Your task to perform on an android device: Open Chrome and go to settings Image 0: 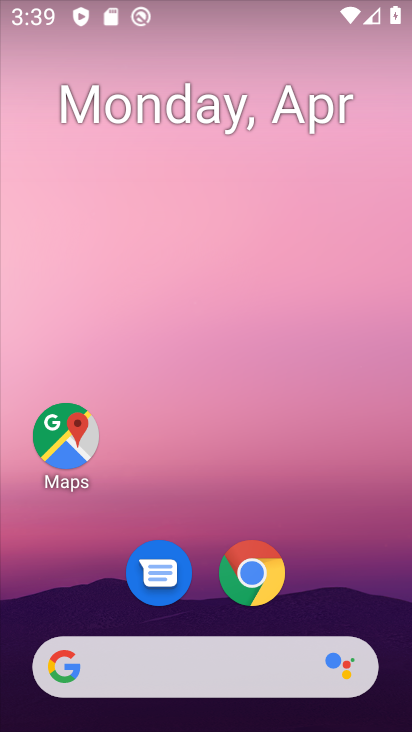
Step 0: drag from (353, 529) to (339, 136)
Your task to perform on an android device: Open Chrome and go to settings Image 1: 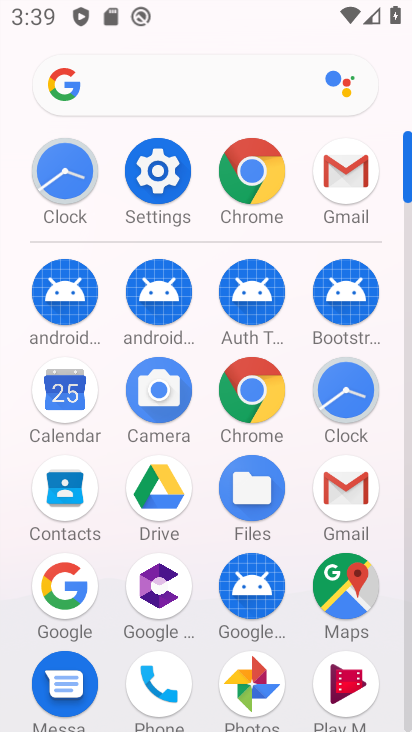
Step 1: click (261, 180)
Your task to perform on an android device: Open Chrome and go to settings Image 2: 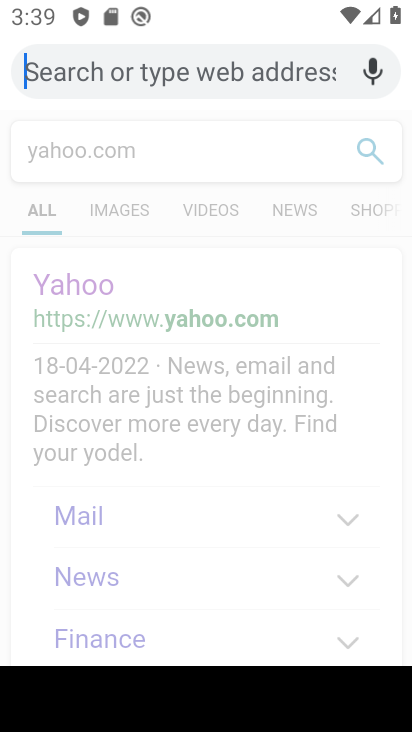
Step 2: press back button
Your task to perform on an android device: Open Chrome and go to settings Image 3: 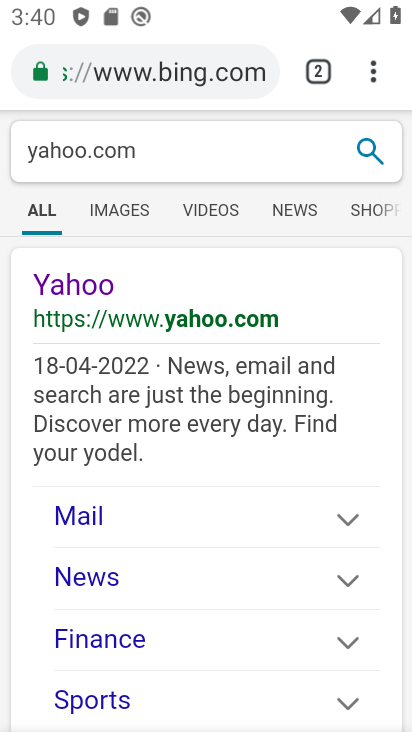
Step 3: click (378, 70)
Your task to perform on an android device: Open Chrome and go to settings Image 4: 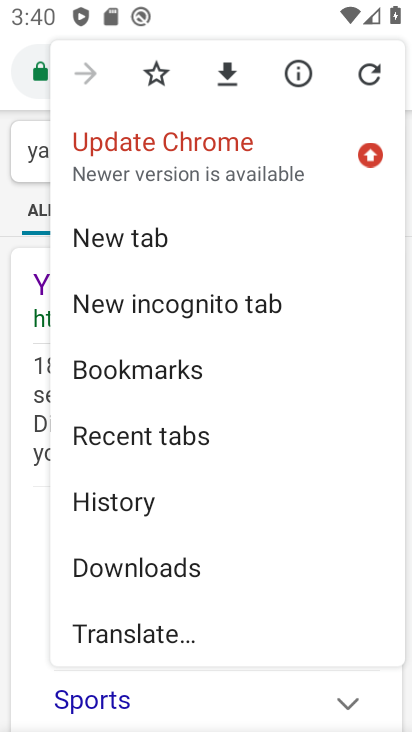
Step 4: drag from (341, 547) to (341, 378)
Your task to perform on an android device: Open Chrome and go to settings Image 5: 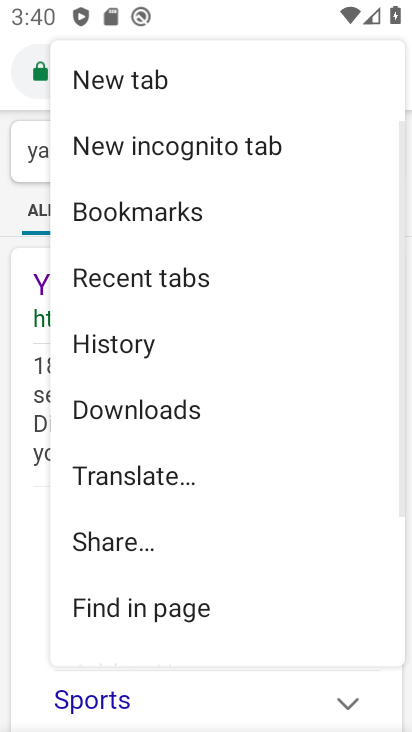
Step 5: drag from (314, 555) to (317, 398)
Your task to perform on an android device: Open Chrome and go to settings Image 6: 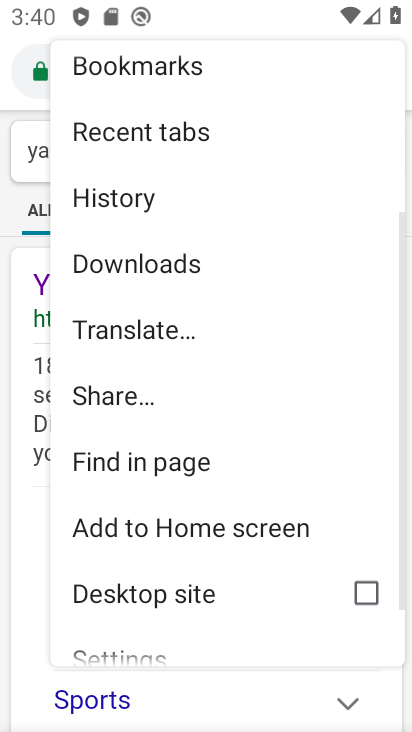
Step 6: drag from (317, 602) to (309, 367)
Your task to perform on an android device: Open Chrome and go to settings Image 7: 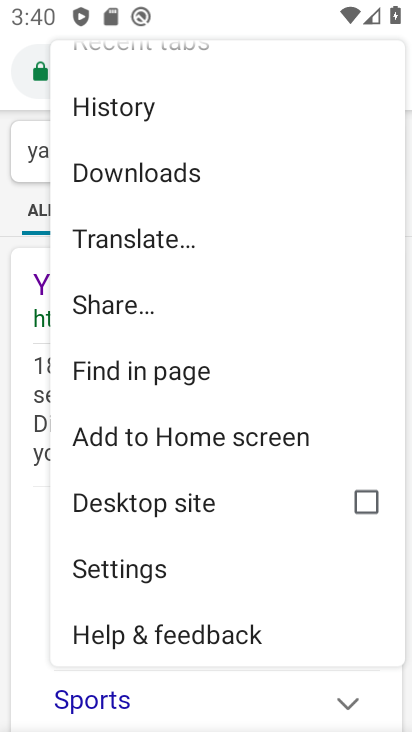
Step 7: click (158, 590)
Your task to perform on an android device: Open Chrome and go to settings Image 8: 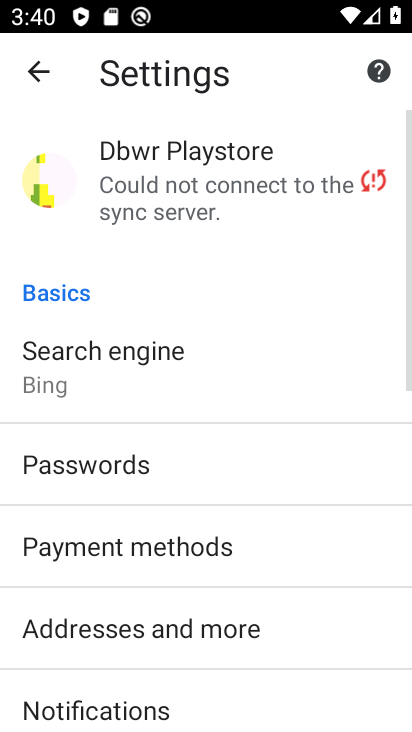
Step 8: task complete